Your task to perform on an android device: turn pop-ups on in chrome Image 0: 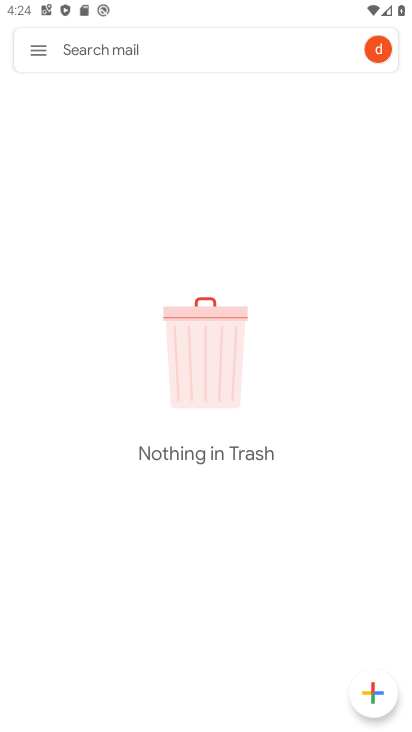
Step 0: press home button
Your task to perform on an android device: turn pop-ups on in chrome Image 1: 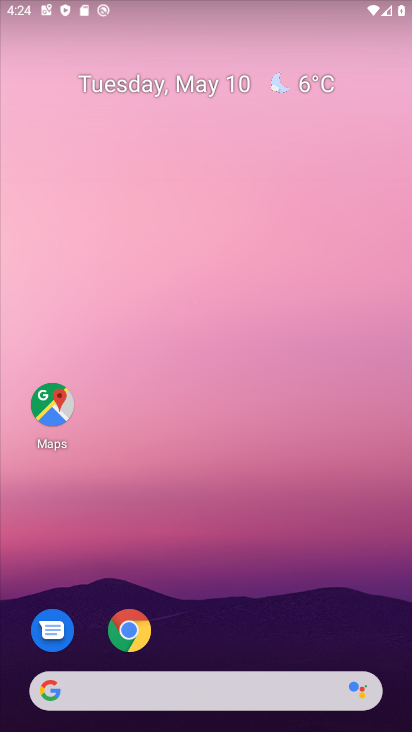
Step 1: drag from (279, 658) to (257, 334)
Your task to perform on an android device: turn pop-ups on in chrome Image 2: 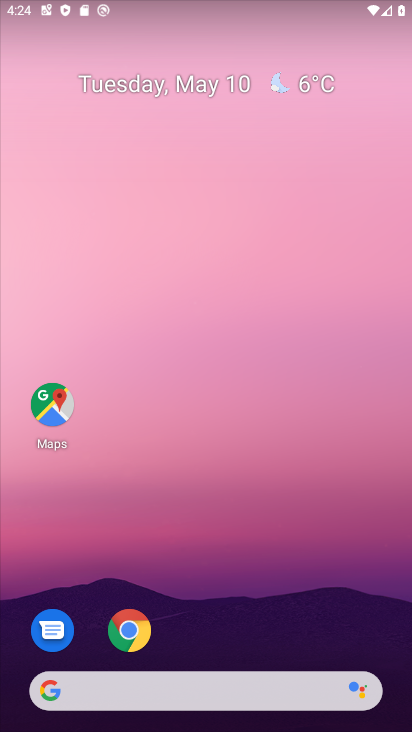
Step 2: click (129, 633)
Your task to perform on an android device: turn pop-ups on in chrome Image 3: 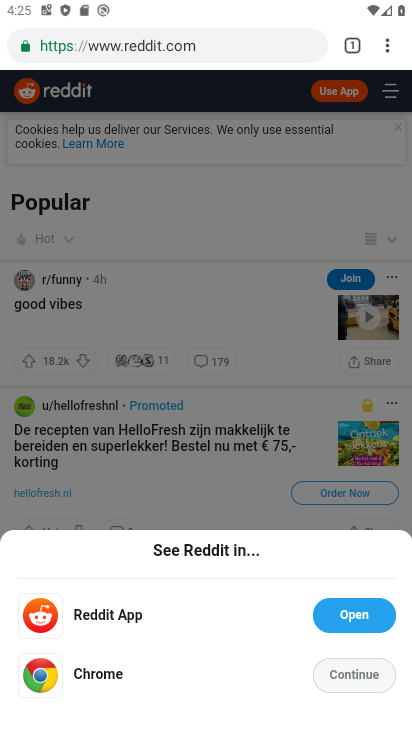
Step 3: drag from (391, 43) to (245, 553)
Your task to perform on an android device: turn pop-ups on in chrome Image 4: 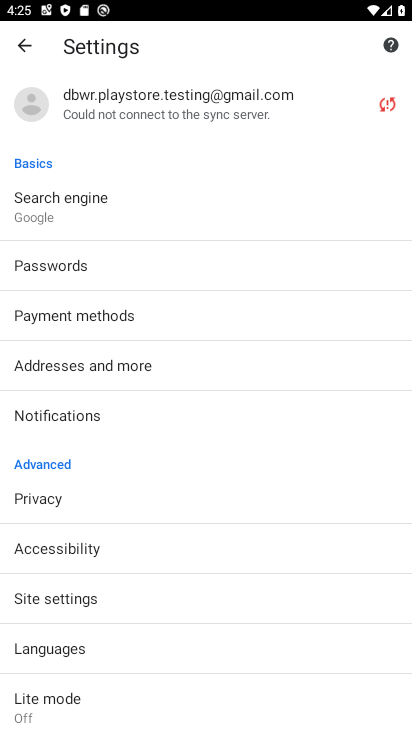
Step 4: drag from (230, 599) to (248, 232)
Your task to perform on an android device: turn pop-ups on in chrome Image 5: 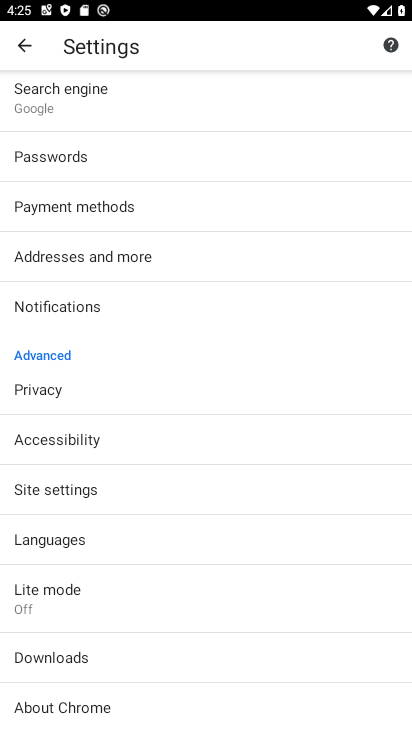
Step 5: click (70, 492)
Your task to perform on an android device: turn pop-ups on in chrome Image 6: 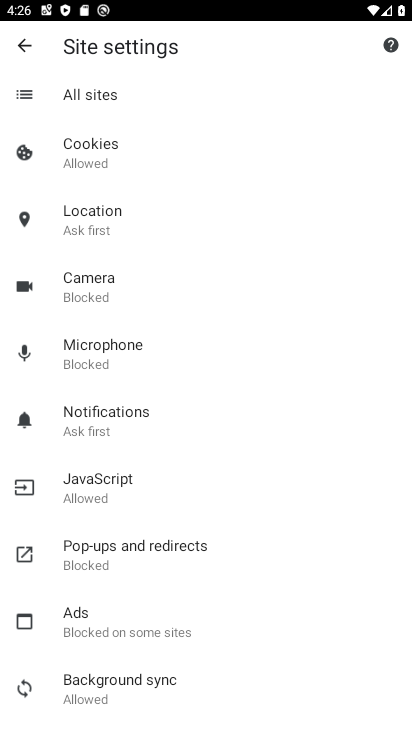
Step 6: click (129, 557)
Your task to perform on an android device: turn pop-ups on in chrome Image 7: 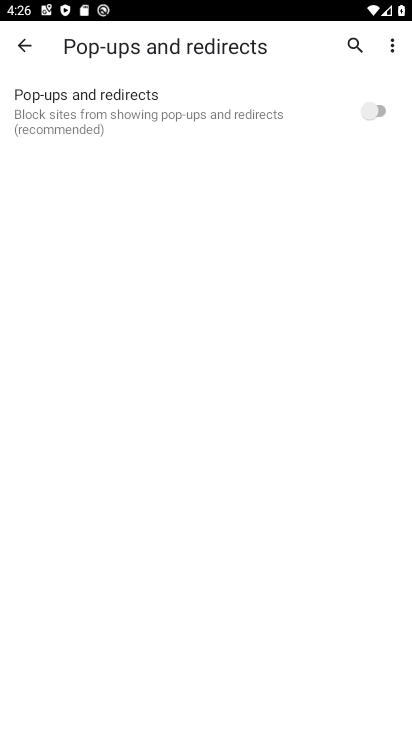
Step 7: click (383, 111)
Your task to perform on an android device: turn pop-ups on in chrome Image 8: 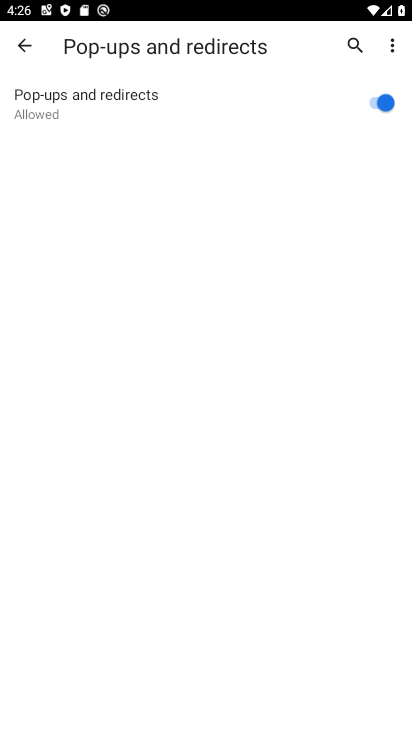
Step 8: task complete